Your task to perform on an android device: turn notification dots on Image 0: 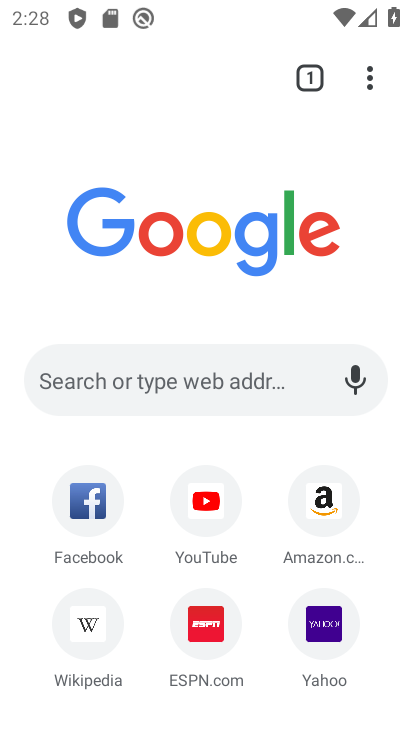
Step 0: press home button
Your task to perform on an android device: turn notification dots on Image 1: 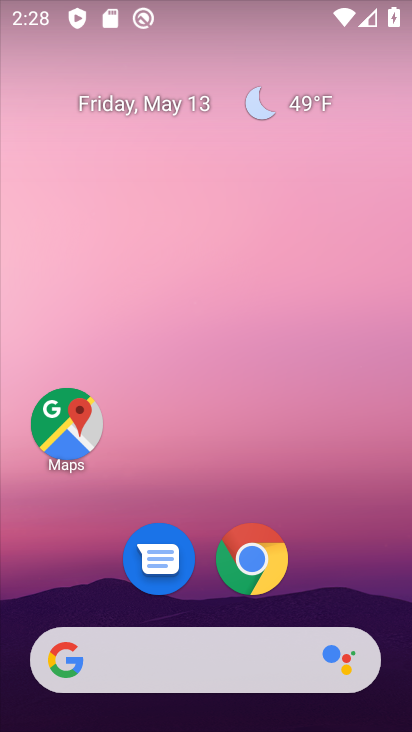
Step 1: drag from (384, 624) to (300, 82)
Your task to perform on an android device: turn notification dots on Image 2: 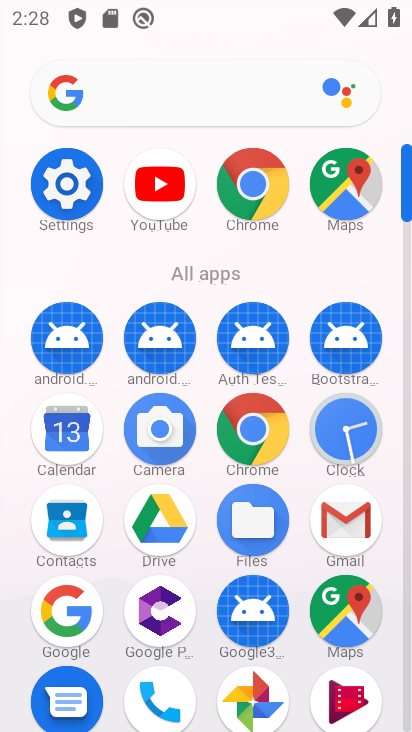
Step 2: click (409, 695)
Your task to perform on an android device: turn notification dots on Image 3: 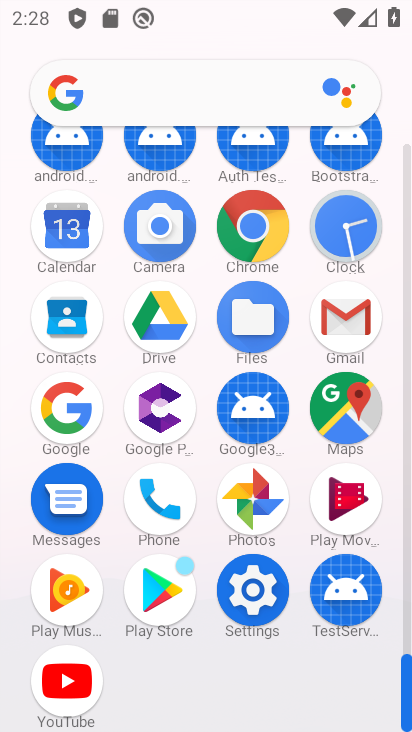
Step 3: click (248, 585)
Your task to perform on an android device: turn notification dots on Image 4: 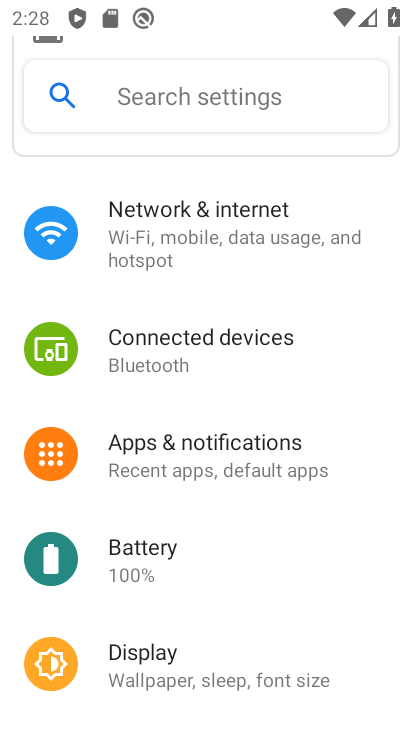
Step 4: click (180, 447)
Your task to perform on an android device: turn notification dots on Image 5: 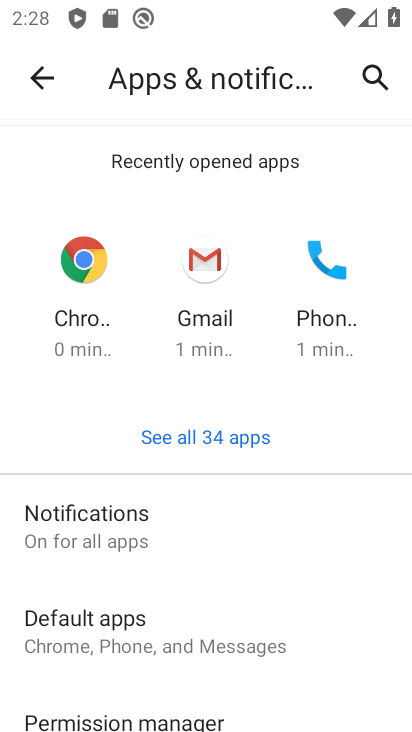
Step 5: click (101, 523)
Your task to perform on an android device: turn notification dots on Image 6: 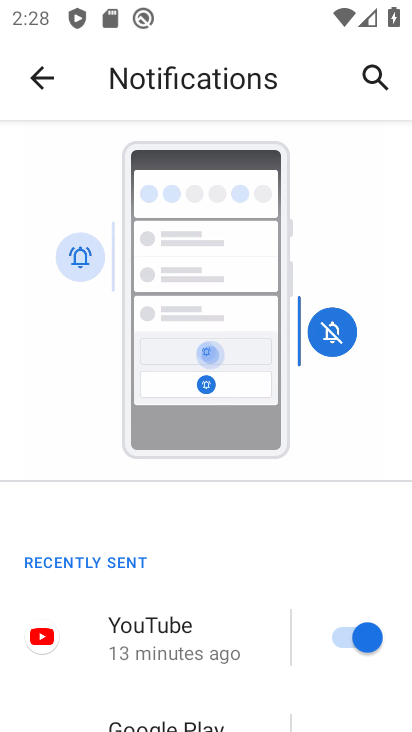
Step 6: drag from (291, 674) to (198, 212)
Your task to perform on an android device: turn notification dots on Image 7: 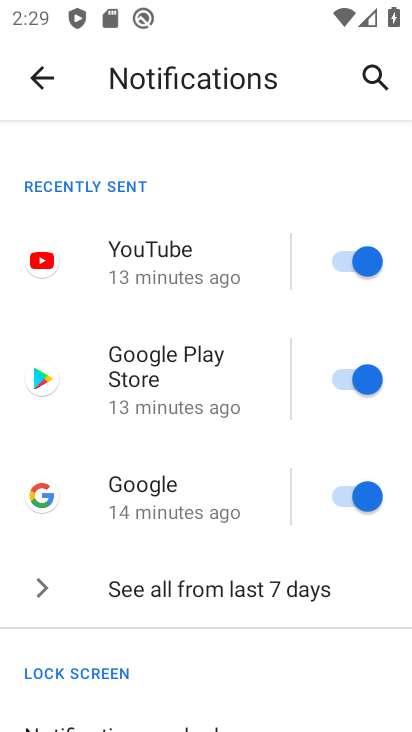
Step 7: drag from (262, 602) to (183, 197)
Your task to perform on an android device: turn notification dots on Image 8: 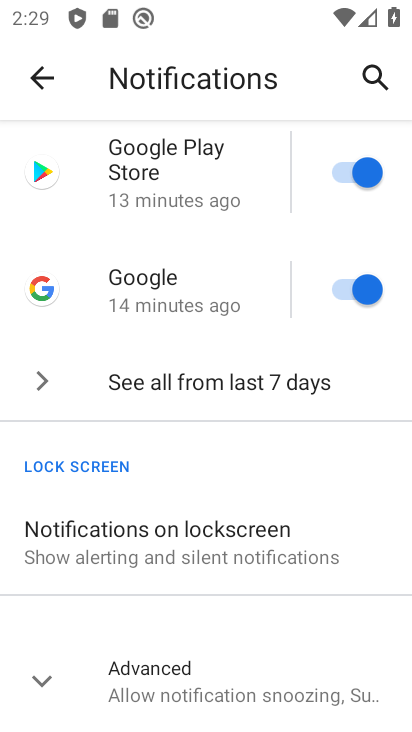
Step 8: click (38, 674)
Your task to perform on an android device: turn notification dots on Image 9: 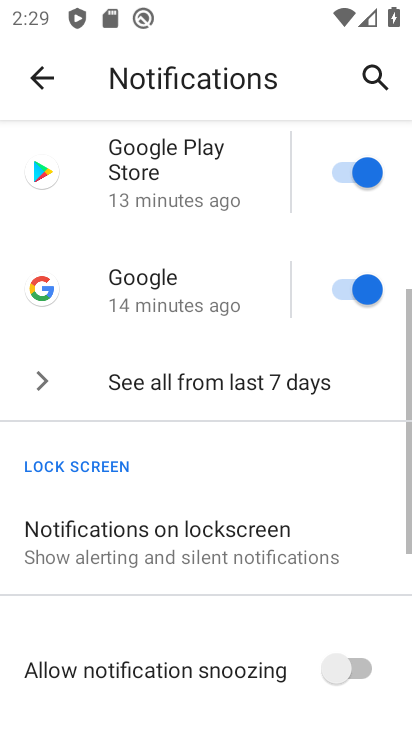
Step 9: task complete